Your task to perform on an android device: See recent photos Image 0: 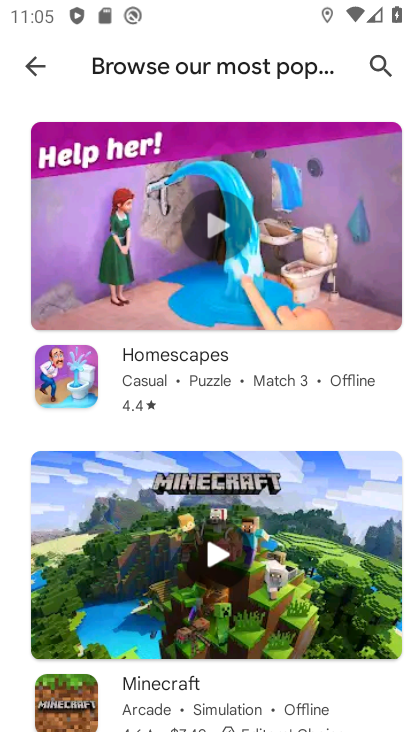
Step 0: press home button
Your task to perform on an android device: See recent photos Image 1: 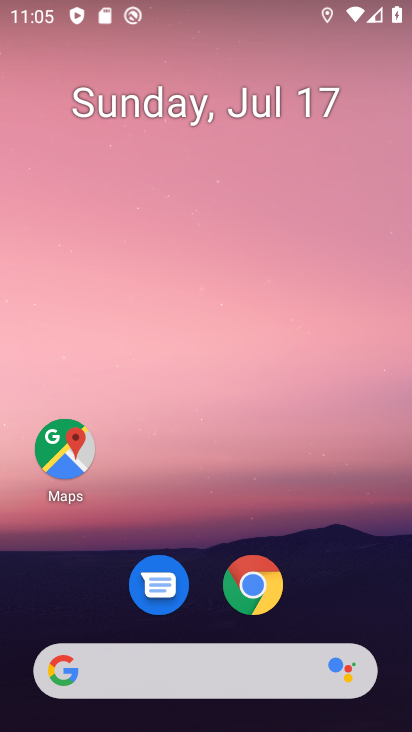
Step 1: drag from (219, 452) to (220, 0)
Your task to perform on an android device: See recent photos Image 2: 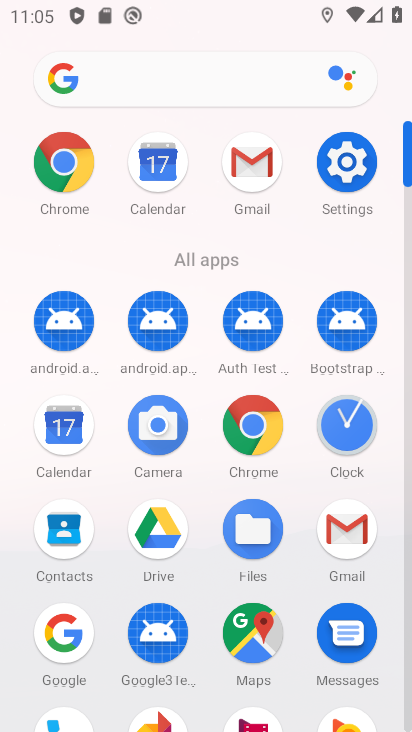
Step 2: drag from (204, 517) to (270, 245)
Your task to perform on an android device: See recent photos Image 3: 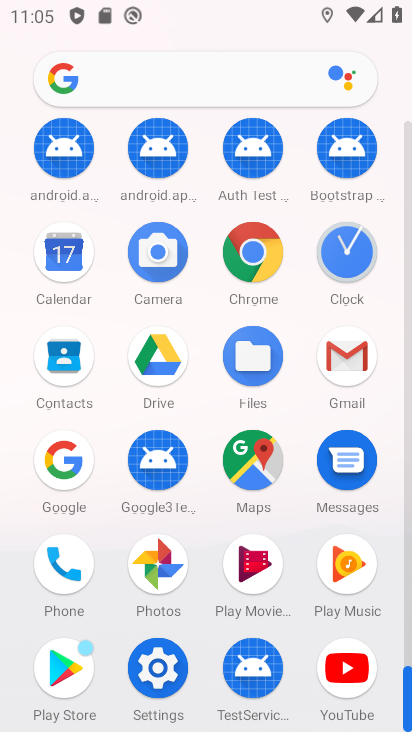
Step 3: click (166, 563)
Your task to perform on an android device: See recent photos Image 4: 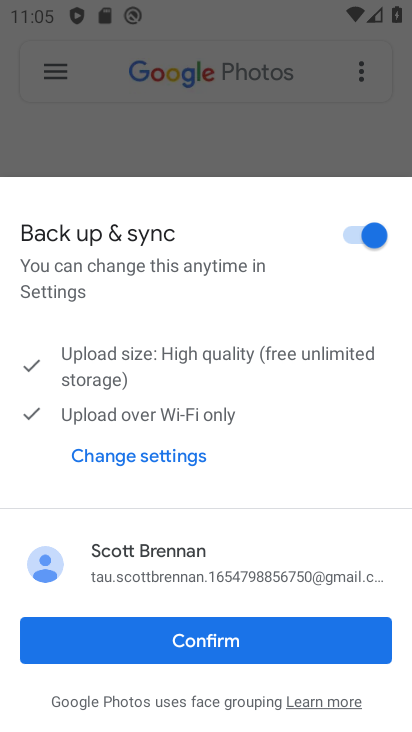
Step 4: click (204, 640)
Your task to perform on an android device: See recent photos Image 5: 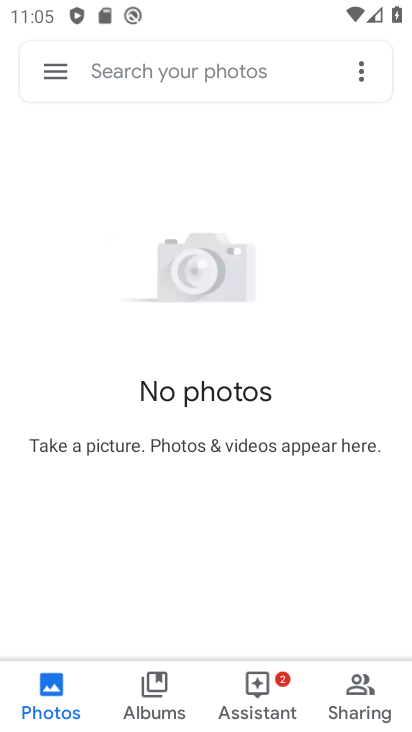
Step 5: click (41, 677)
Your task to perform on an android device: See recent photos Image 6: 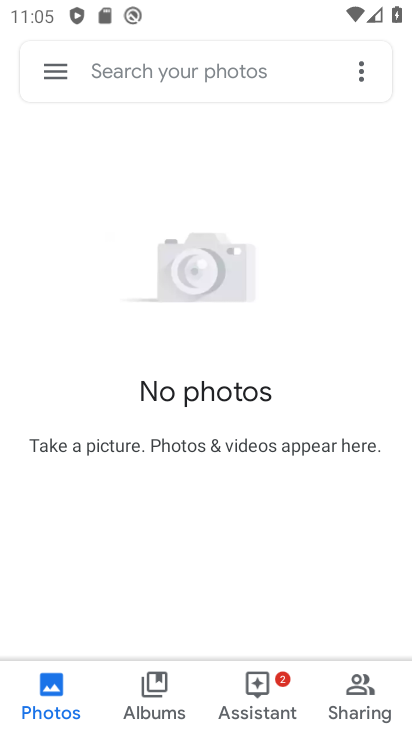
Step 6: task complete